Your task to perform on an android device: turn on the 24-hour format for clock Image 0: 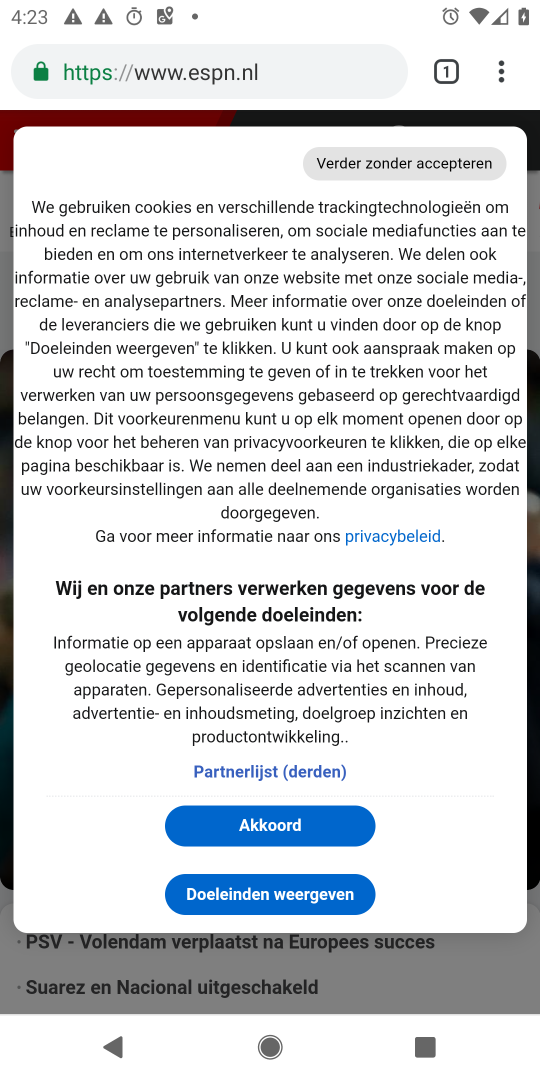
Step 0: press home button
Your task to perform on an android device: turn on the 24-hour format for clock Image 1: 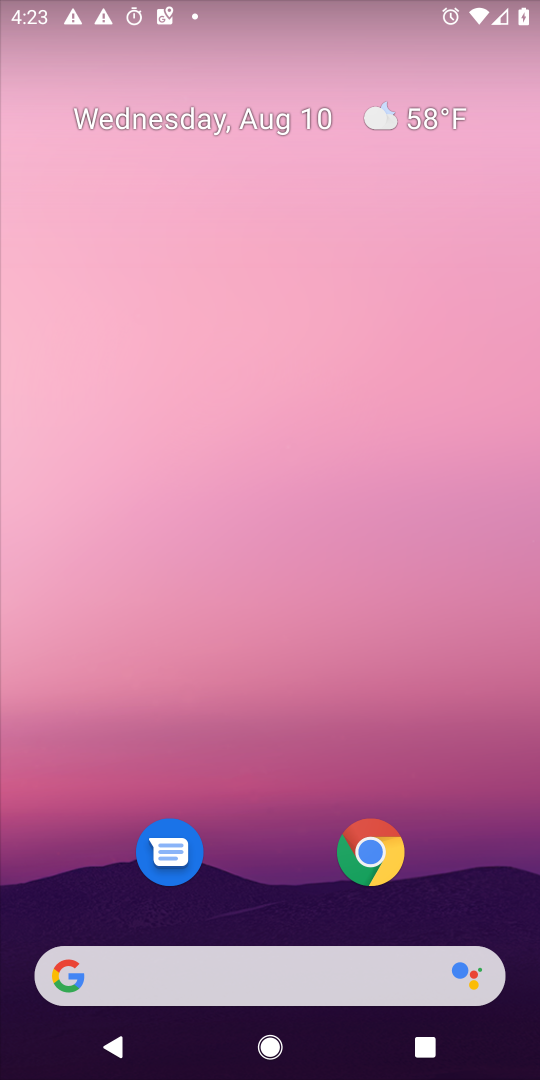
Step 1: drag from (489, 765) to (141, 99)
Your task to perform on an android device: turn on the 24-hour format for clock Image 2: 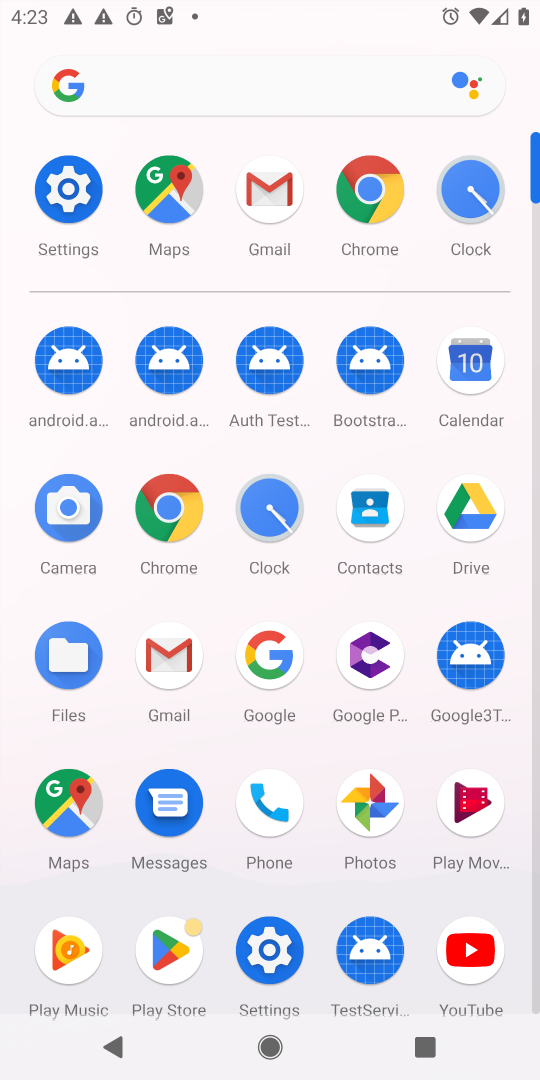
Step 2: click (286, 490)
Your task to perform on an android device: turn on the 24-hour format for clock Image 3: 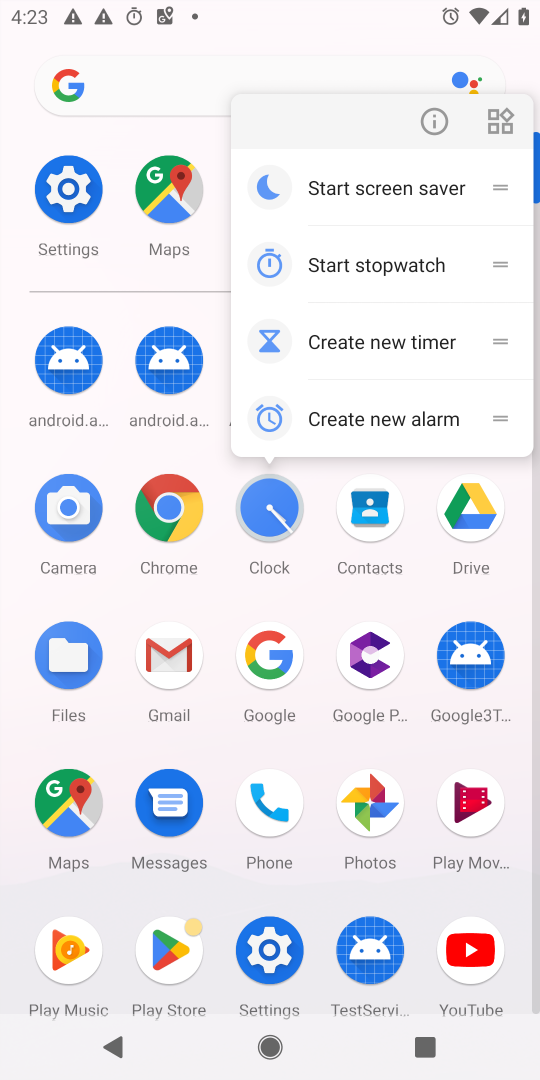
Step 3: click (295, 500)
Your task to perform on an android device: turn on the 24-hour format for clock Image 4: 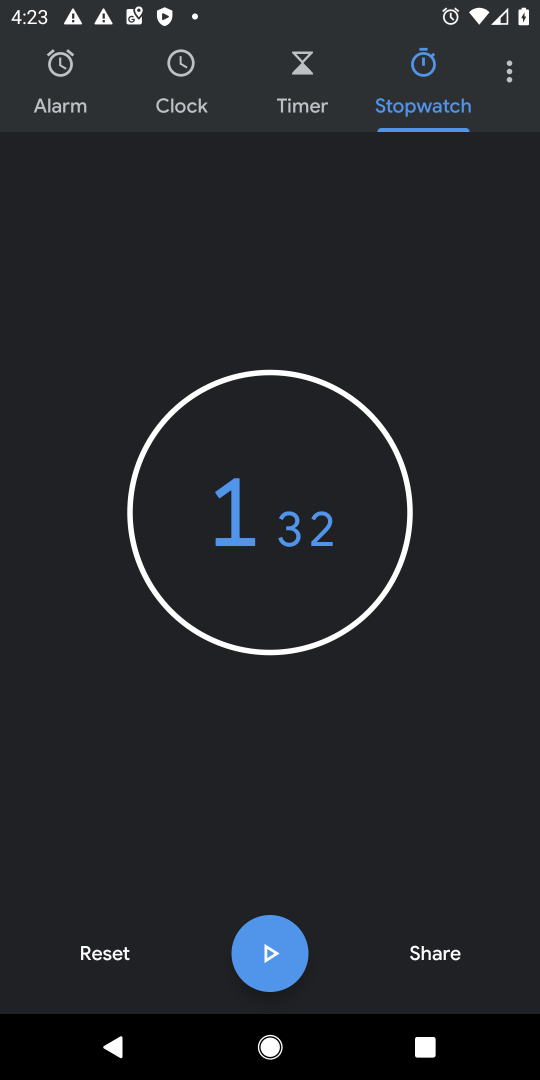
Step 4: click (493, 65)
Your task to perform on an android device: turn on the 24-hour format for clock Image 5: 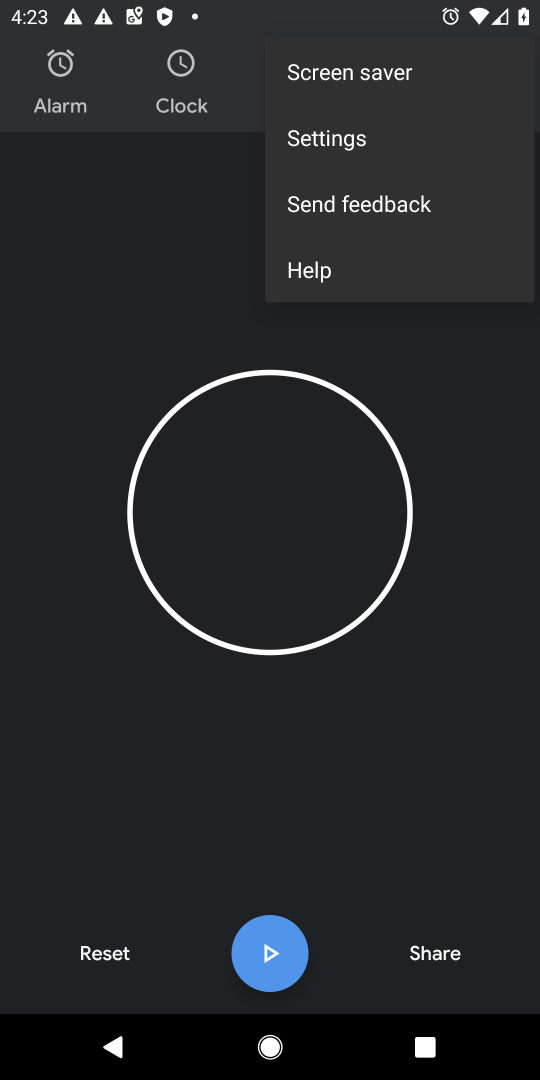
Step 5: click (364, 157)
Your task to perform on an android device: turn on the 24-hour format for clock Image 6: 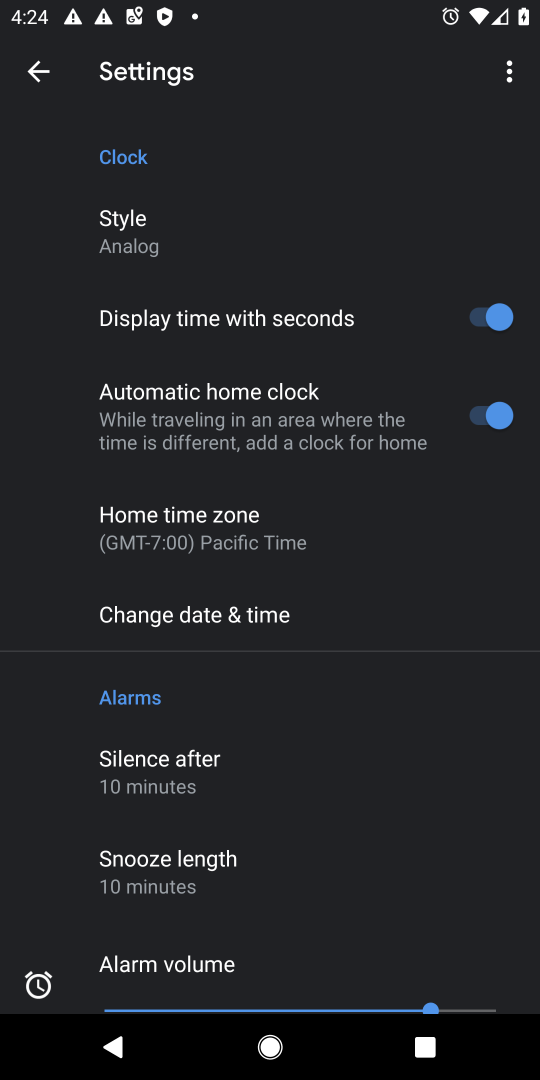
Step 6: click (208, 601)
Your task to perform on an android device: turn on the 24-hour format for clock Image 7: 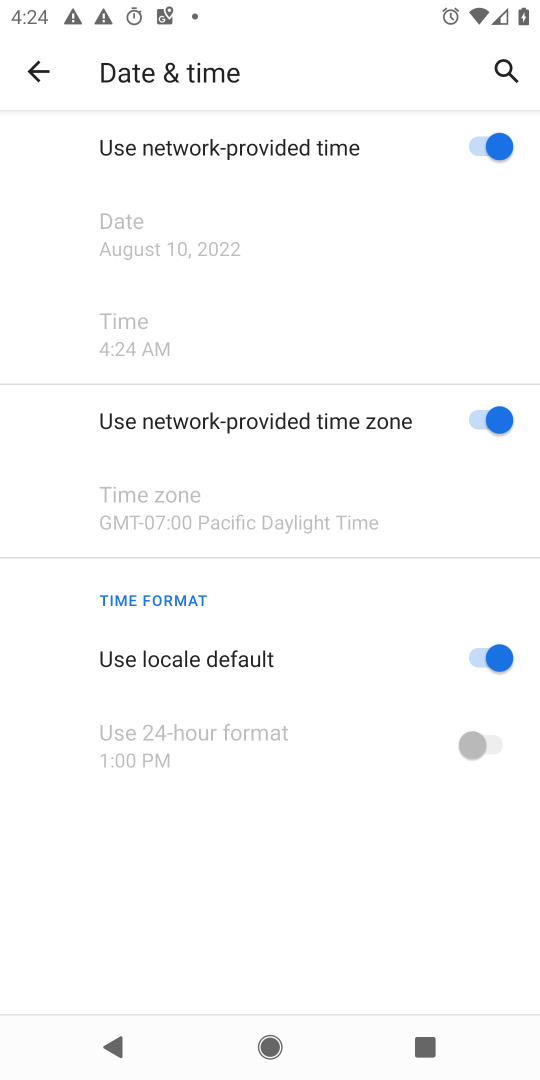
Step 7: click (486, 649)
Your task to perform on an android device: turn on the 24-hour format for clock Image 8: 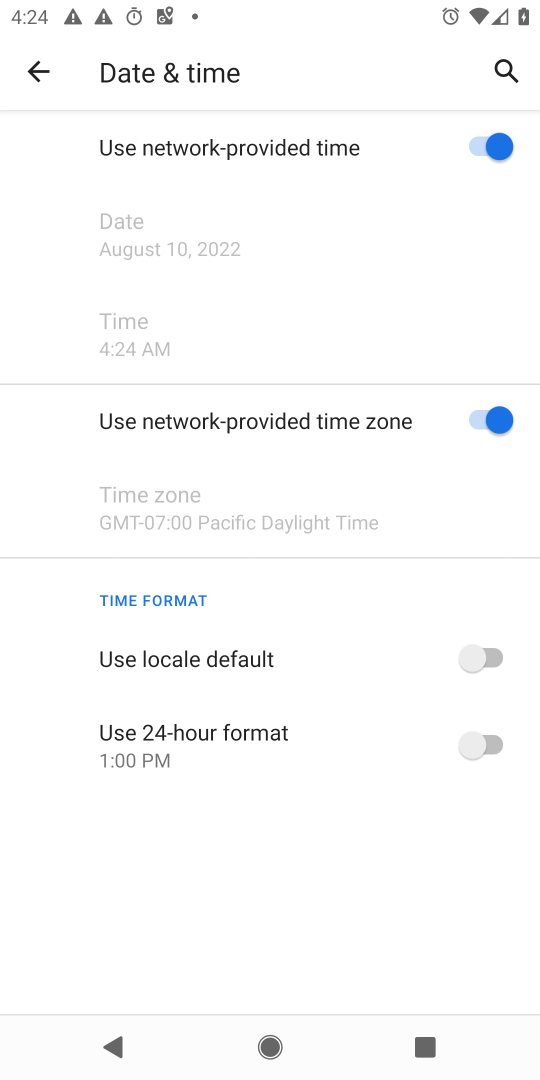
Step 8: click (466, 740)
Your task to perform on an android device: turn on the 24-hour format for clock Image 9: 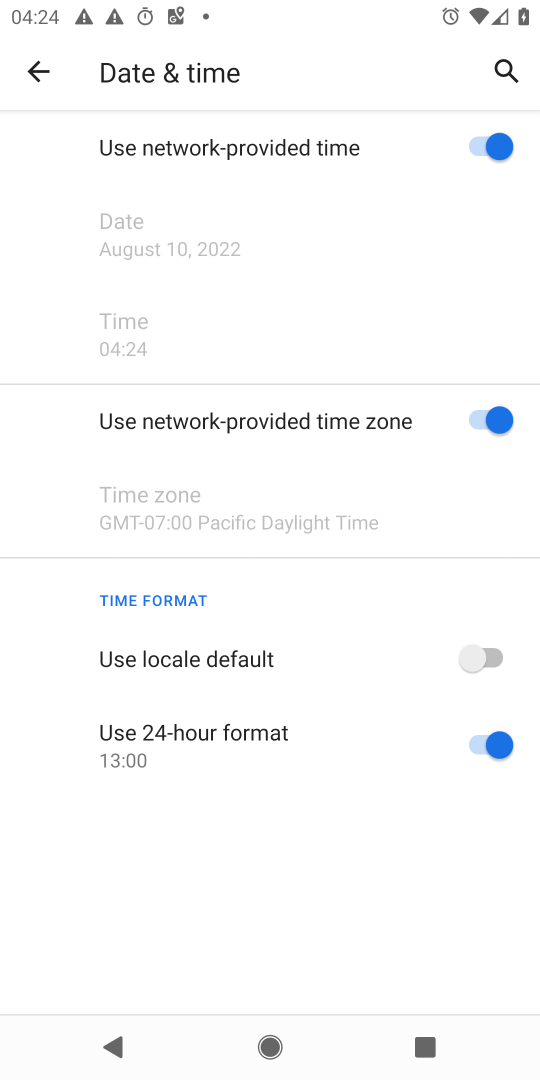
Step 9: task complete